Your task to perform on an android device: Go to Maps Image 0: 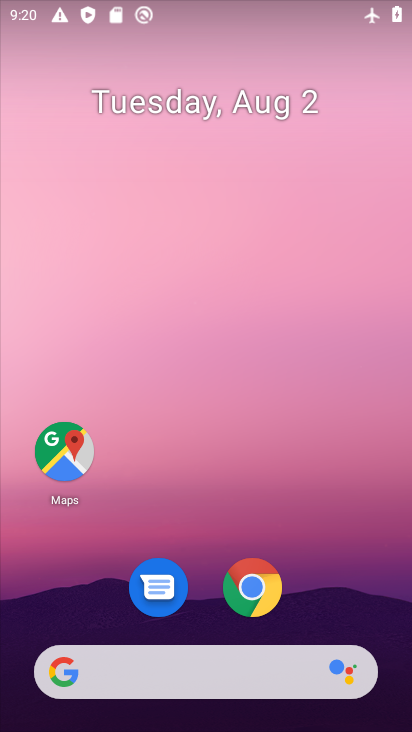
Step 0: drag from (363, 570) to (288, 205)
Your task to perform on an android device: Go to Maps Image 1: 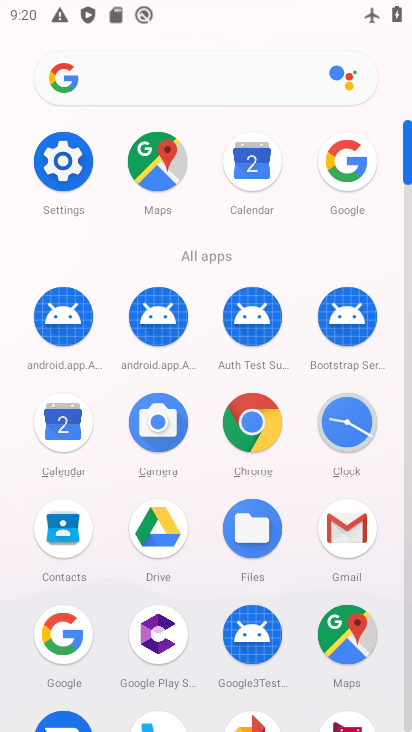
Step 1: click (358, 641)
Your task to perform on an android device: Go to Maps Image 2: 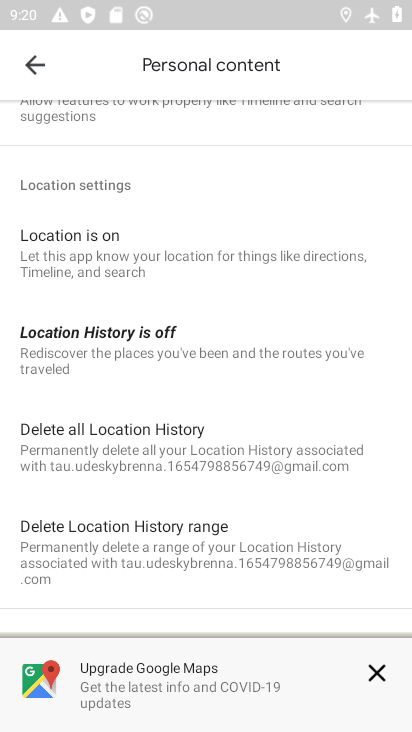
Step 2: task complete